Your task to perform on an android device: toggle notification dots Image 0: 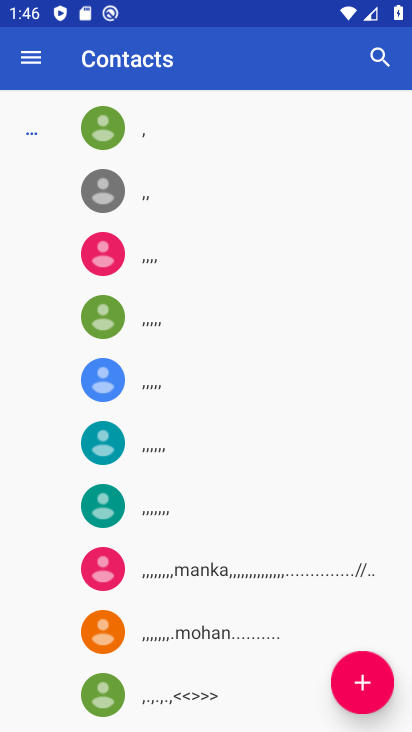
Step 0: press home button
Your task to perform on an android device: toggle notification dots Image 1: 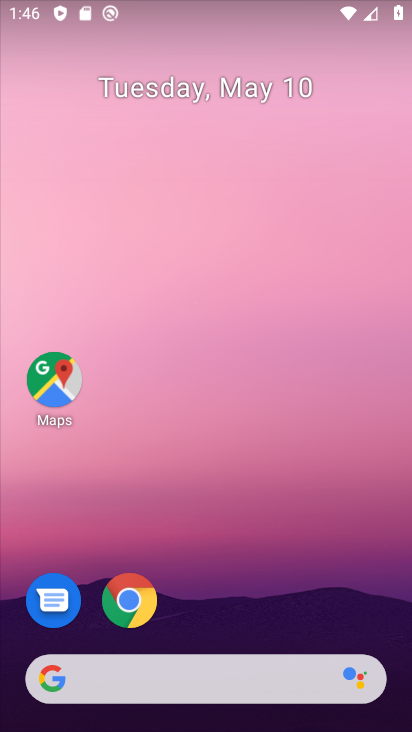
Step 1: drag from (193, 638) to (341, 131)
Your task to perform on an android device: toggle notification dots Image 2: 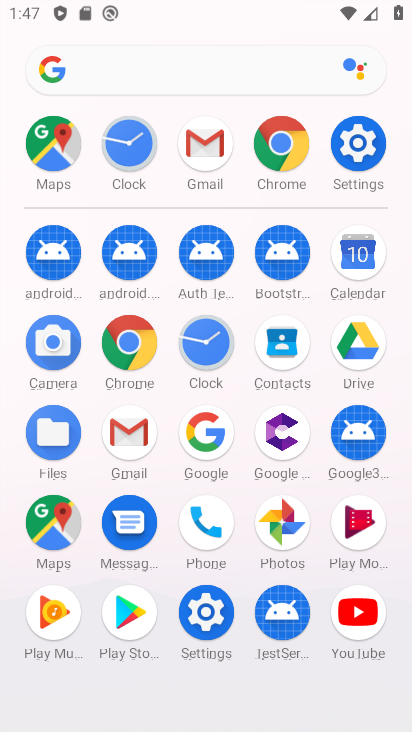
Step 2: click (367, 171)
Your task to perform on an android device: toggle notification dots Image 3: 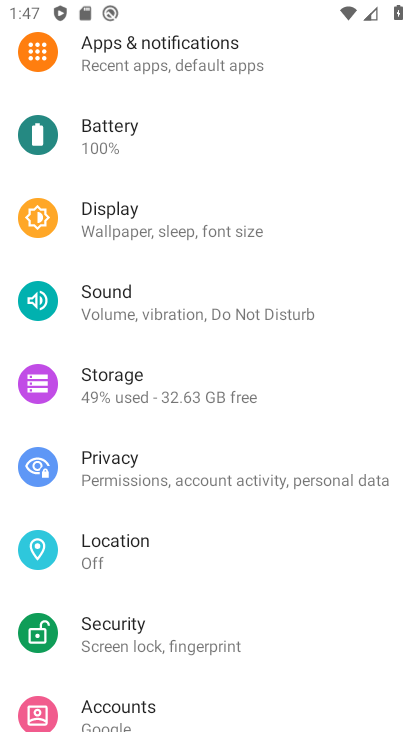
Step 3: drag from (288, 267) to (245, 456)
Your task to perform on an android device: toggle notification dots Image 4: 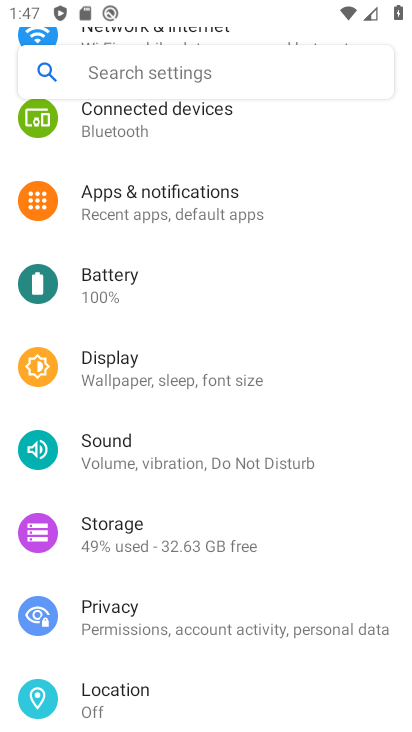
Step 4: click (226, 225)
Your task to perform on an android device: toggle notification dots Image 5: 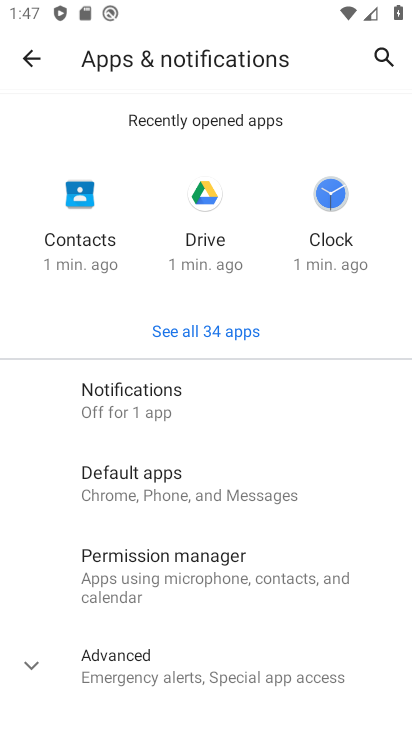
Step 5: click (276, 401)
Your task to perform on an android device: toggle notification dots Image 6: 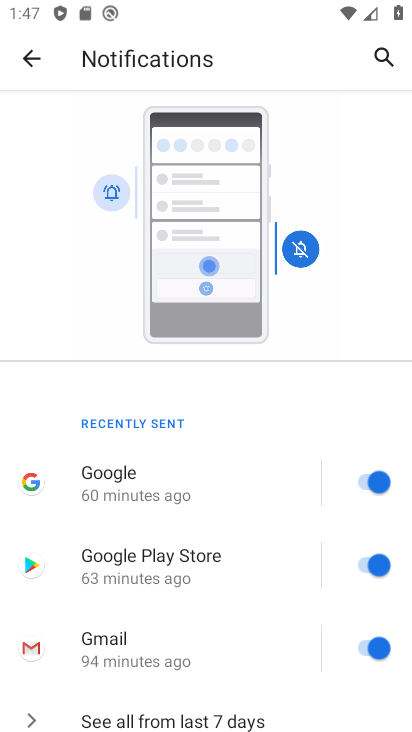
Step 6: drag from (176, 626) to (251, 241)
Your task to perform on an android device: toggle notification dots Image 7: 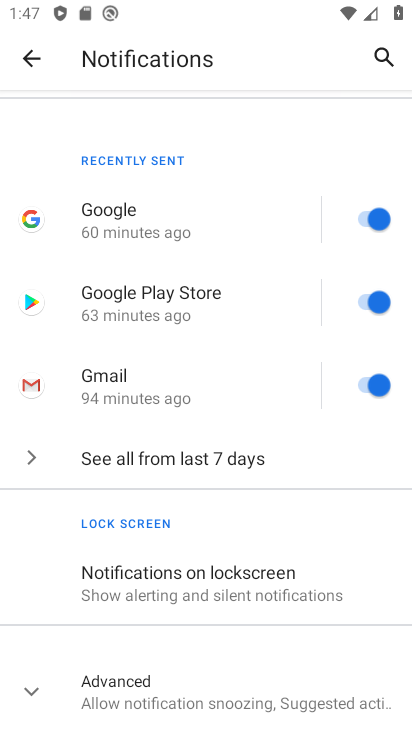
Step 7: drag from (214, 563) to (240, 219)
Your task to perform on an android device: toggle notification dots Image 8: 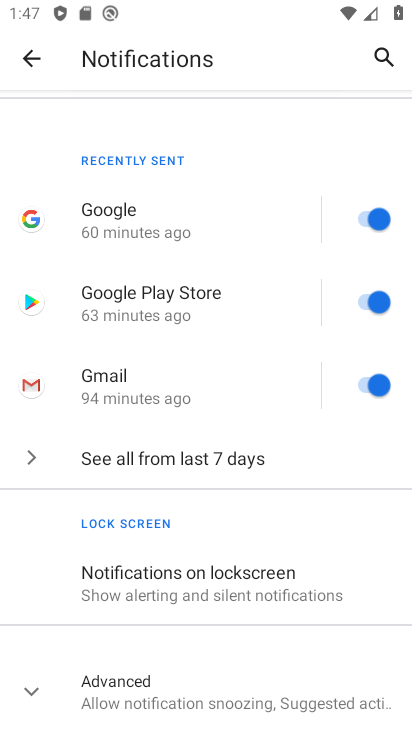
Step 8: click (157, 675)
Your task to perform on an android device: toggle notification dots Image 9: 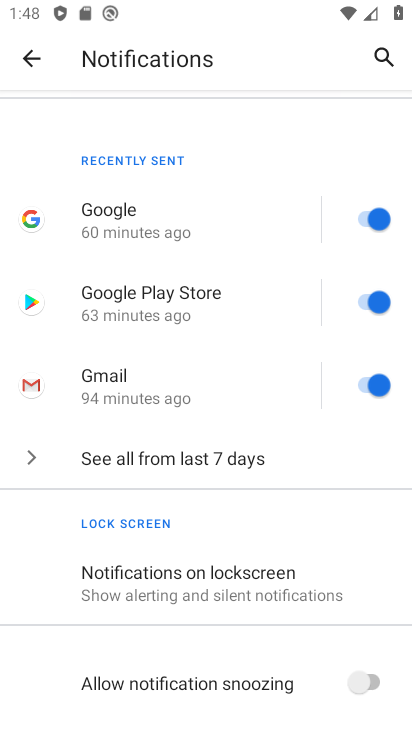
Step 9: drag from (172, 668) to (239, 326)
Your task to perform on an android device: toggle notification dots Image 10: 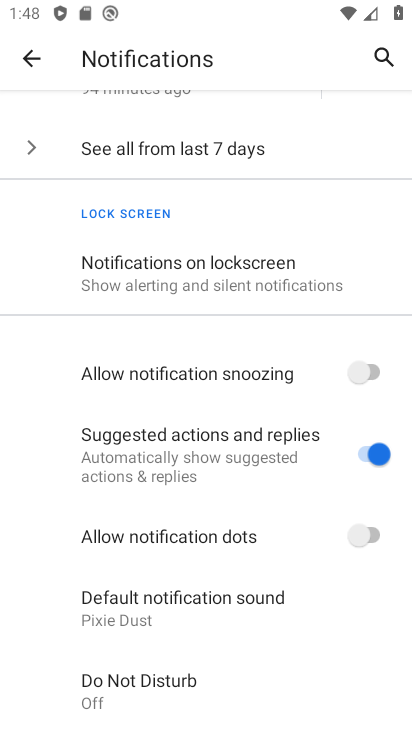
Step 10: click (376, 536)
Your task to perform on an android device: toggle notification dots Image 11: 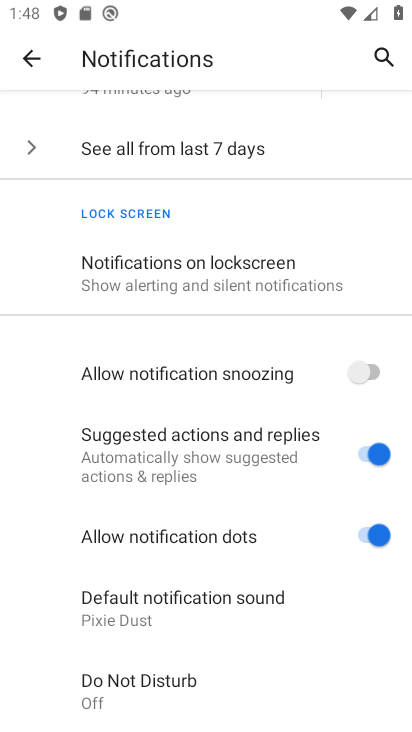
Step 11: task complete